Your task to perform on an android device: Show me popular videos on Youtube Image 0: 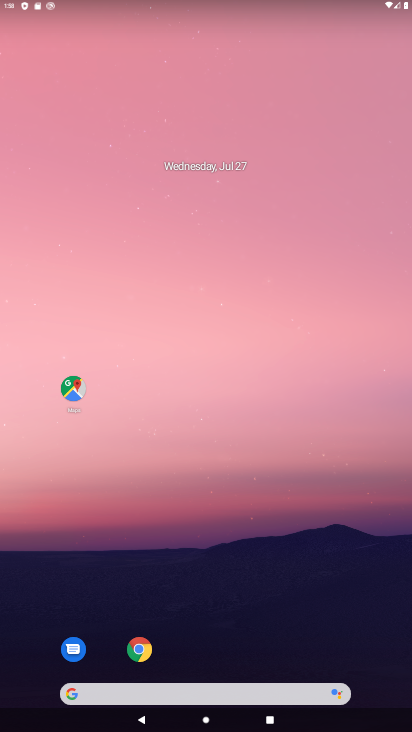
Step 0: drag from (316, 636) to (312, 91)
Your task to perform on an android device: Show me popular videos on Youtube Image 1: 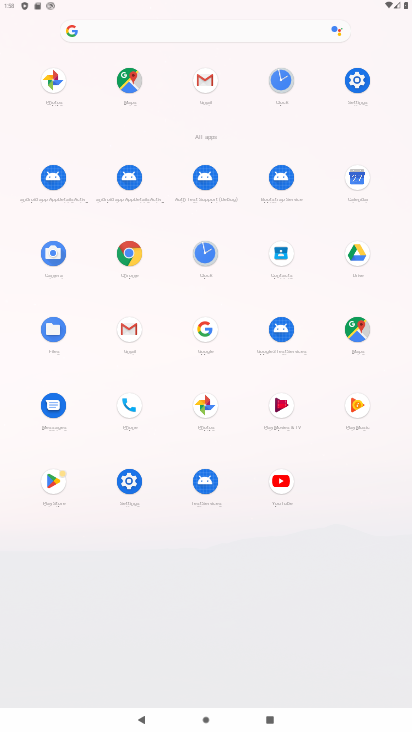
Step 1: click (285, 476)
Your task to perform on an android device: Show me popular videos on Youtube Image 2: 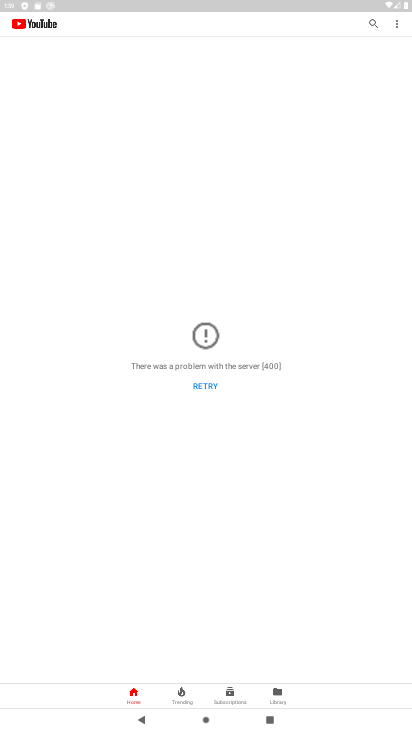
Step 2: click (394, 24)
Your task to perform on an android device: Show me popular videos on Youtube Image 3: 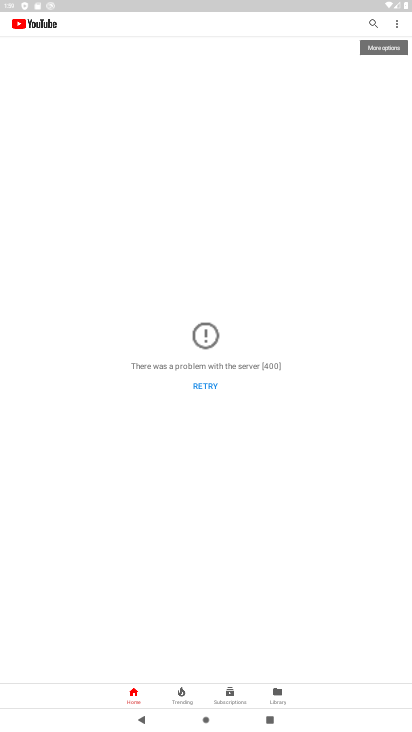
Step 3: task complete